Your task to perform on an android device: turn notification dots on Image 0: 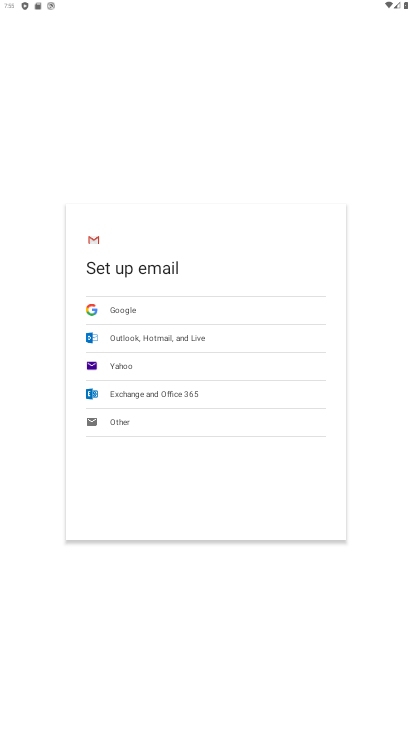
Step 0: press home button
Your task to perform on an android device: turn notification dots on Image 1: 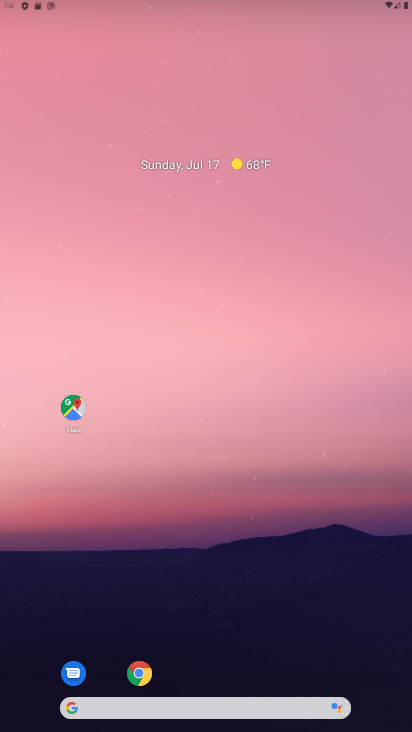
Step 1: drag from (210, 655) to (169, 0)
Your task to perform on an android device: turn notification dots on Image 2: 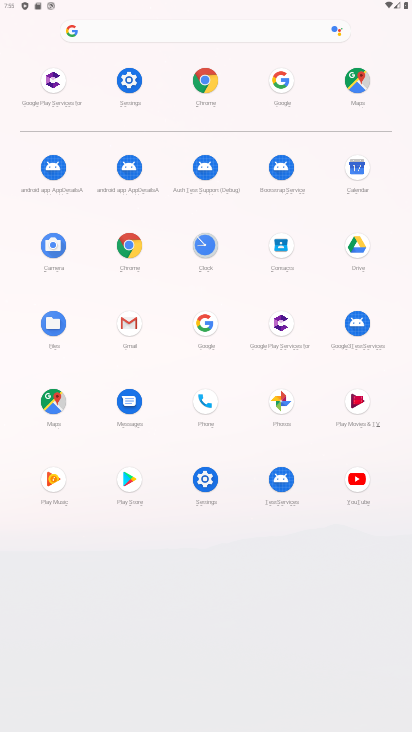
Step 2: click (126, 84)
Your task to perform on an android device: turn notification dots on Image 3: 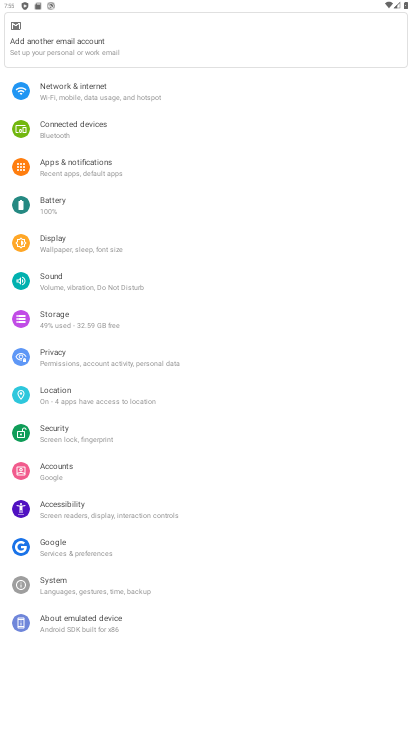
Step 3: click (98, 173)
Your task to perform on an android device: turn notification dots on Image 4: 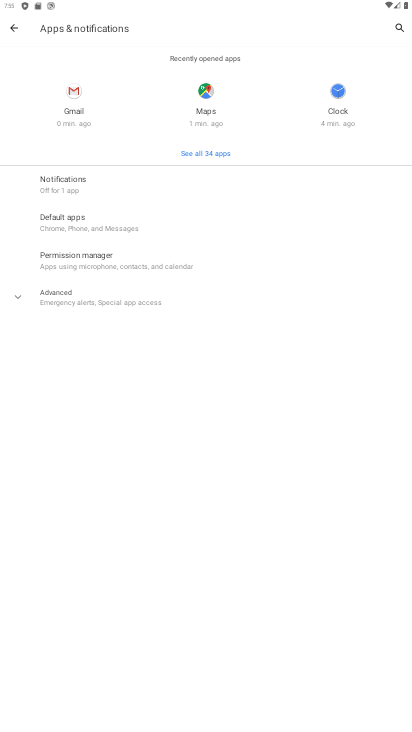
Step 4: click (65, 298)
Your task to perform on an android device: turn notification dots on Image 5: 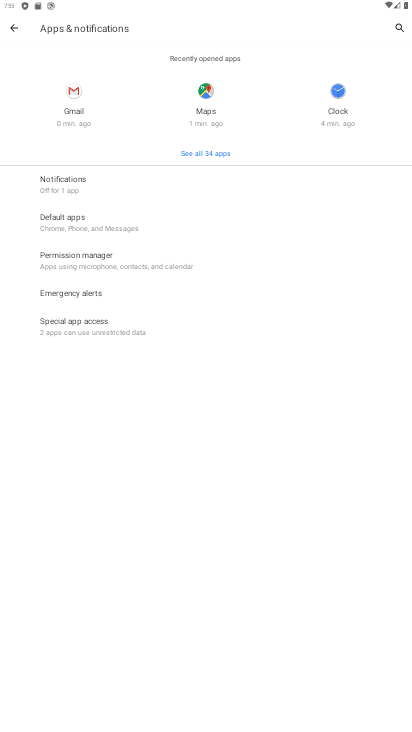
Step 5: click (72, 183)
Your task to perform on an android device: turn notification dots on Image 6: 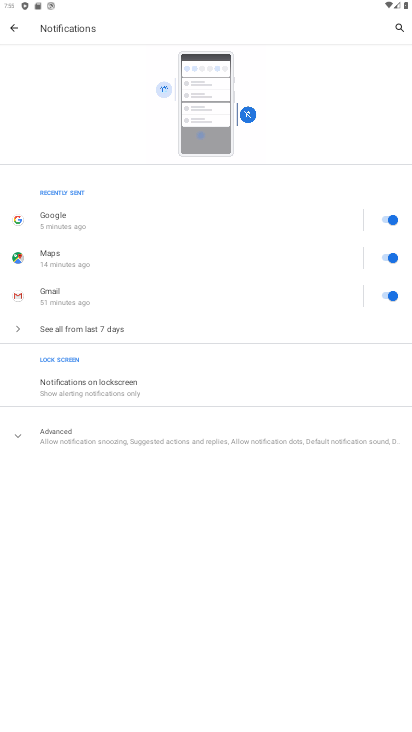
Step 6: click (60, 438)
Your task to perform on an android device: turn notification dots on Image 7: 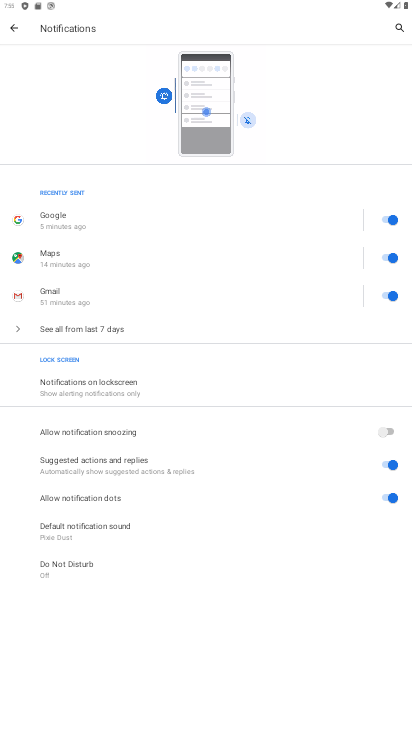
Step 7: task complete